Your task to perform on an android device: Check the news Image 0: 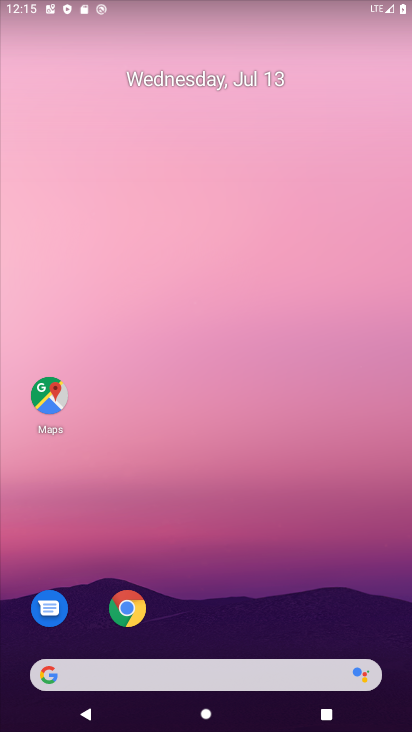
Step 0: click (148, 672)
Your task to perform on an android device: Check the news Image 1: 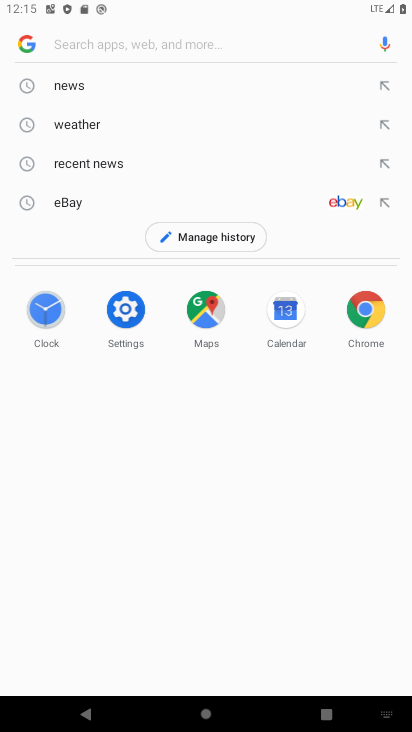
Step 1: click (77, 76)
Your task to perform on an android device: Check the news Image 2: 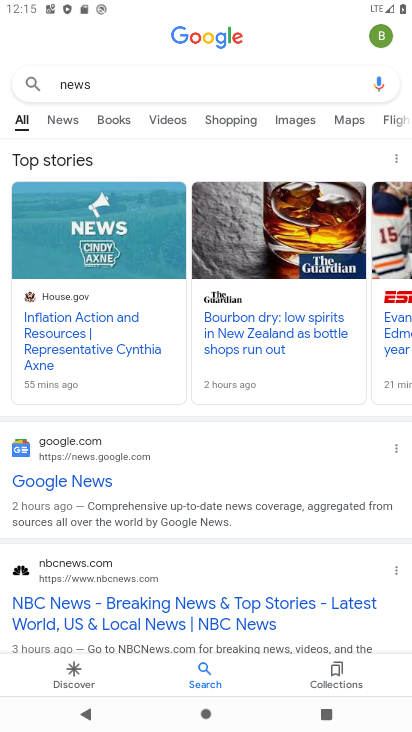
Step 2: task complete